Your task to perform on an android device: turn off data saver in the chrome app Image 0: 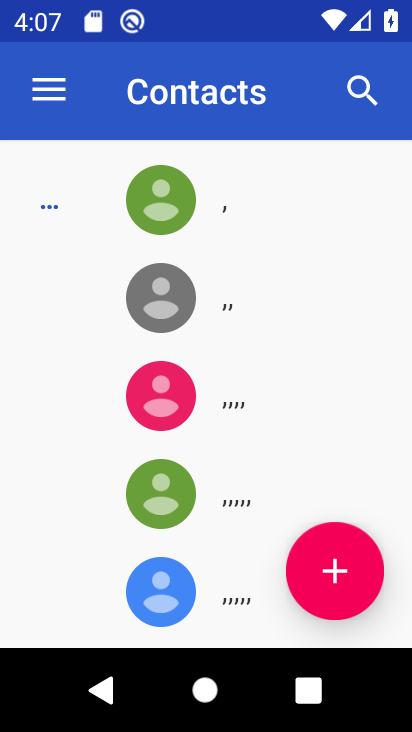
Step 0: press home button
Your task to perform on an android device: turn off data saver in the chrome app Image 1: 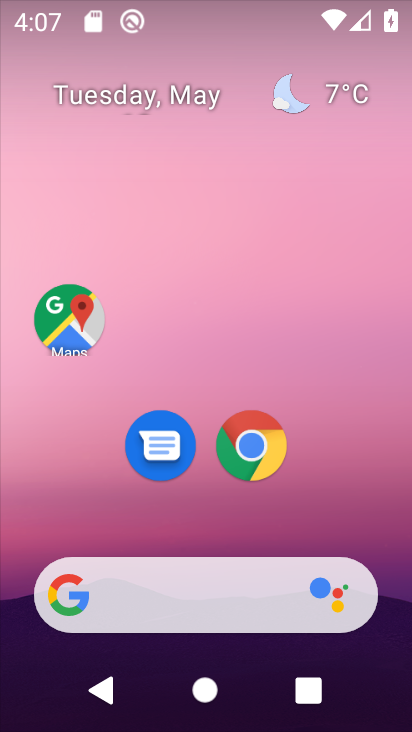
Step 1: click (257, 468)
Your task to perform on an android device: turn off data saver in the chrome app Image 2: 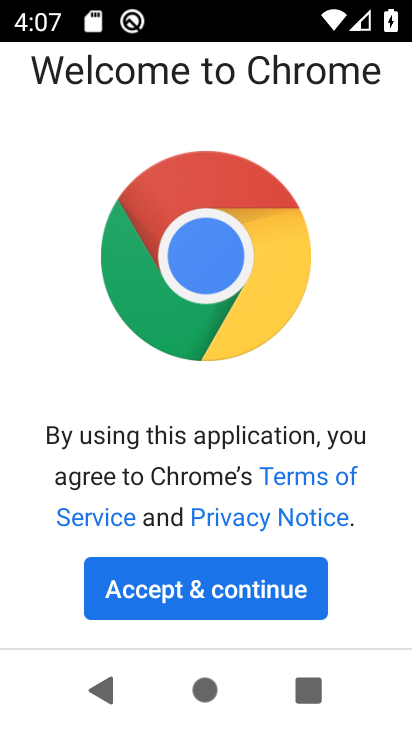
Step 2: click (242, 591)
Your task to perform on an android device: turn off data saver in the chrome app Image 3: 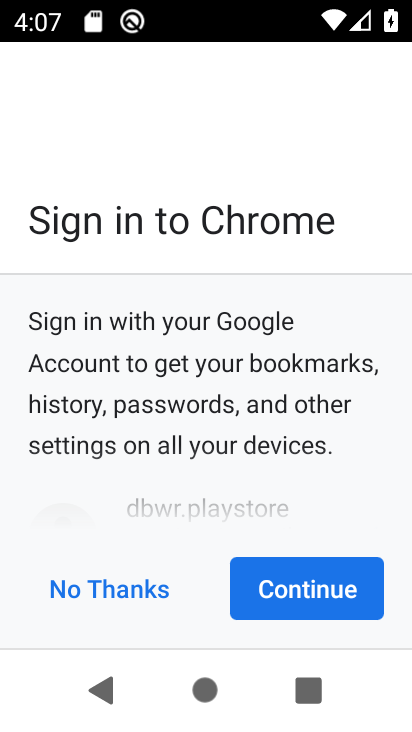
Step 3: click (344, 601)
Your task to perform on an android device: turn off data saver in the chrome app Image 4: 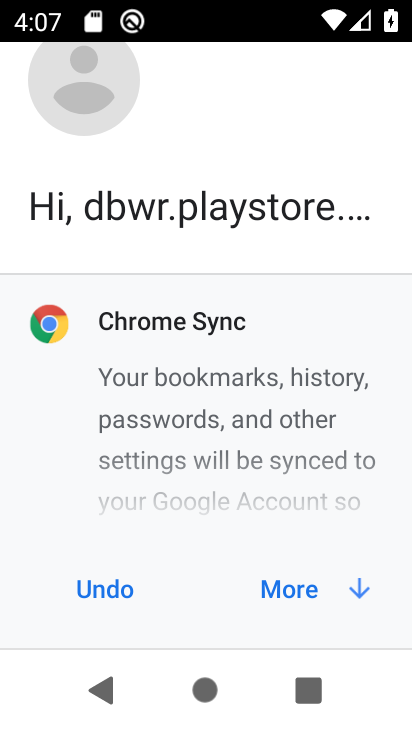
Step 4: click (303, 592)
Your task to perform on an android device: turn off data saver in the chrome app Image 5: 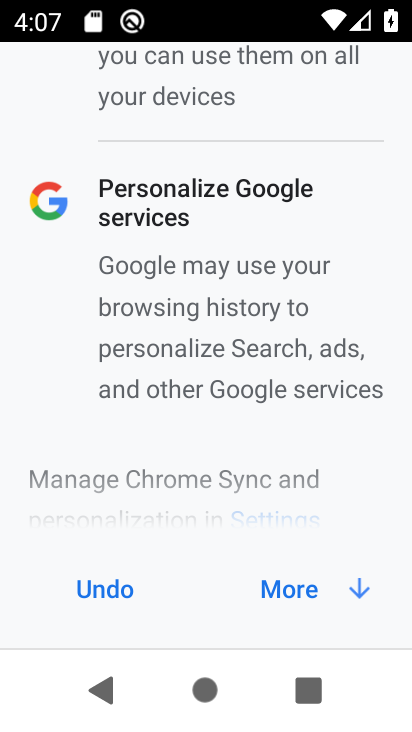
Step 5: click (303, 592)
Your task to perform on an android device: turn off data saver in the chrome app Image 6: 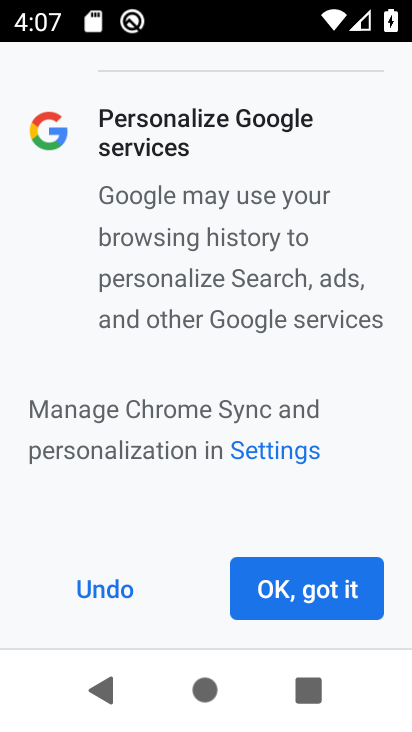
Step 6: click (304, 591)
Your task to perform on an android device: turn off data saver in the chrome app Image 7: 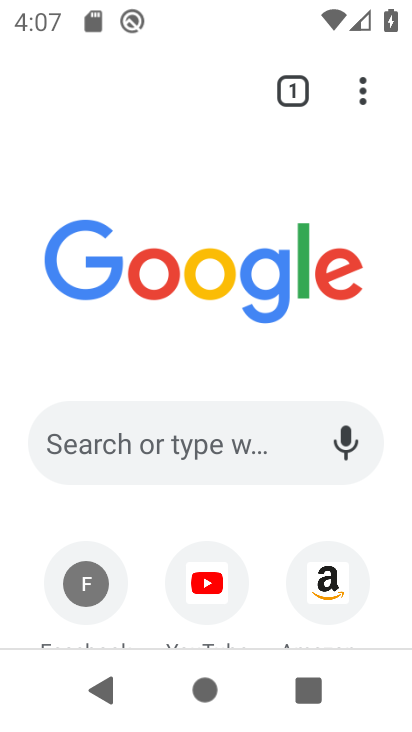
Step 7: click (367, 100)
Your task to perform on an android device: turn off data saver in the chrome app Image 8: 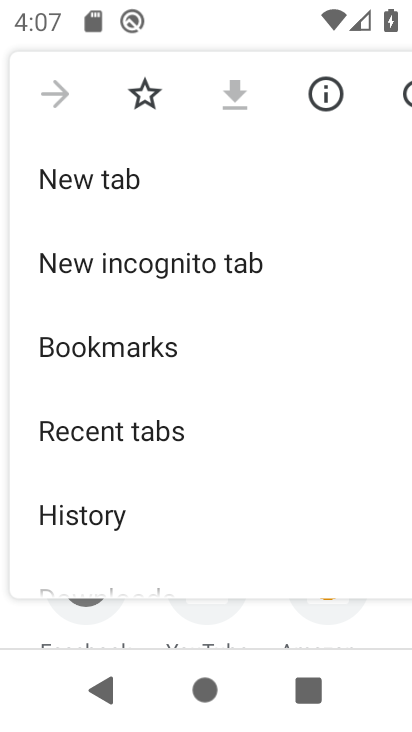
Step 8: drag from (114, 516) to (172, 157)
Your task to perform on an android device: turn off data saver in the chrome app Image 9: 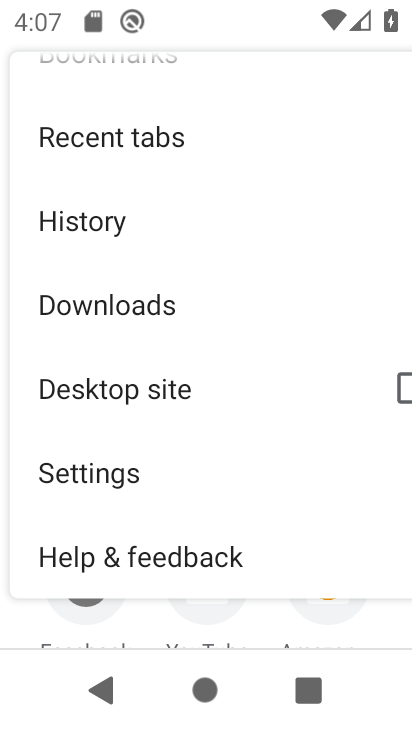
Step 9: click (131, 472)
Your task to perform on an android device: turn off data saver in the chrome app Image 10: 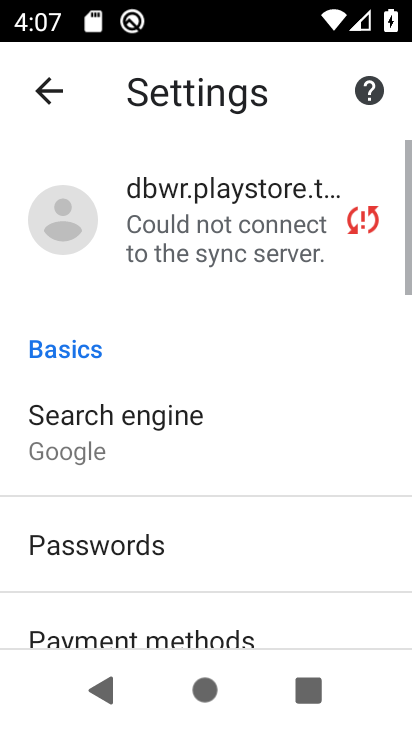
Step 10: drag from (164, 546) to (179, 244)
Your task to perform on an android device: turn off data saver in the chrome app Image 11: 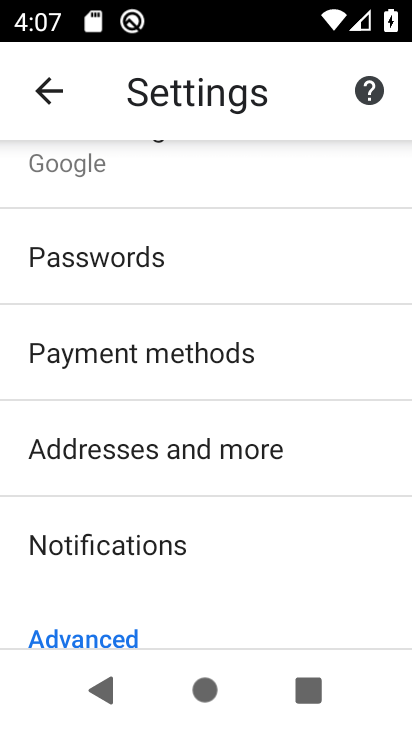
Step 11: drag from (130, 585) to (192, 310)
Your task to perform on an android device: turn off data saver in the chrome app Image 12: 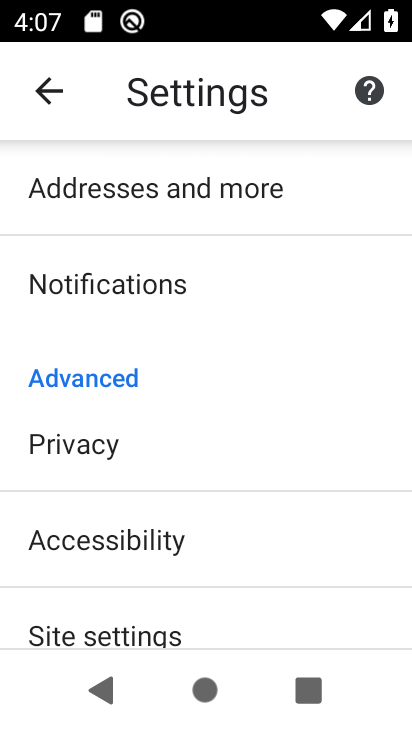
Step 12: drag from (137, 555) to (153, 297)
Your task to perform on an android device: turn off data saver in the chrome app Image 13: 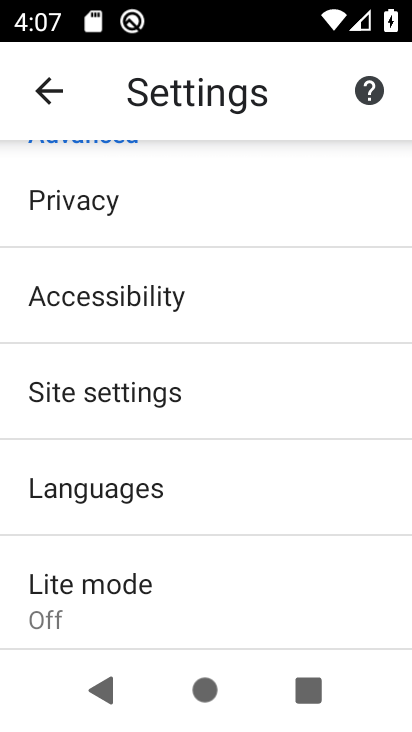
Step 13: click (117, 581)
Your task to perform on an android device: turn off data saver in the chrome app Image 14: 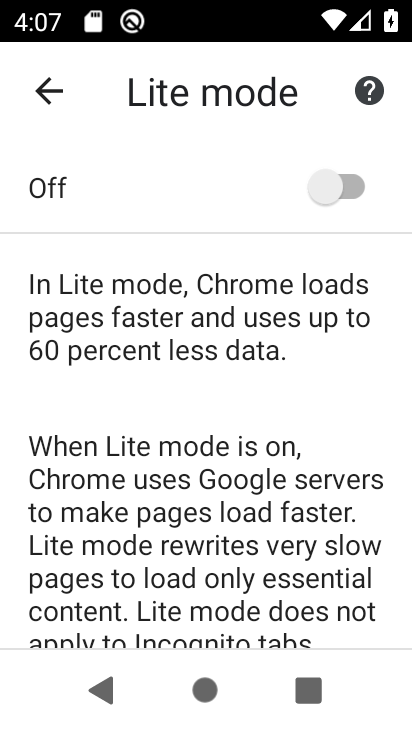
Step 14: task complete